Your task to perform on an android device: Open Google Chrome and click the shortcut for Amazon.com Image 0: 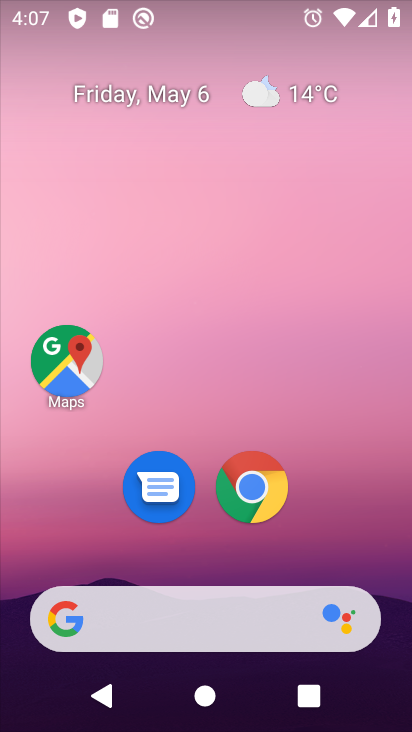
Step 0: drag from (204, 538) to (210, 35)
Your task to perform on an android device: Open Google Chrome and click the shortcut for Amazon.com Image 1: 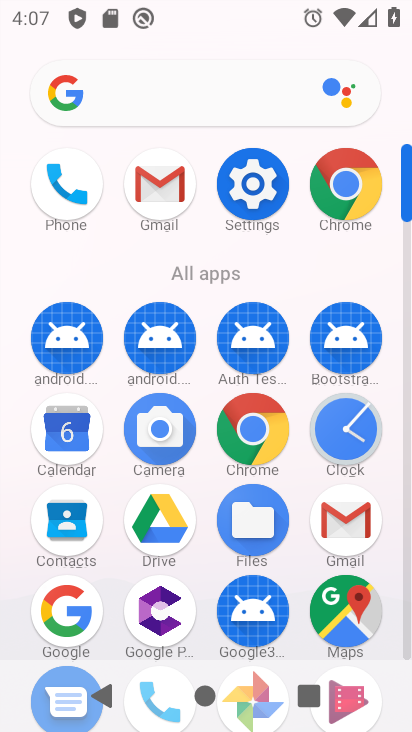
Step 1: click (355, 193)
Your task to perform on an android device: Open Google Chrome and click the shortcut for Amazon.com Image 2: 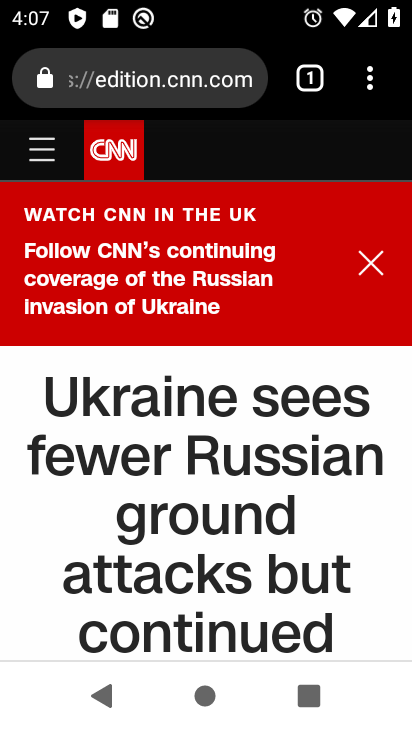
Step 2: click (363, 268)
Your task to perform on an android device: Open Google Chrome and click the shortcut for Amazon.com Image 3: 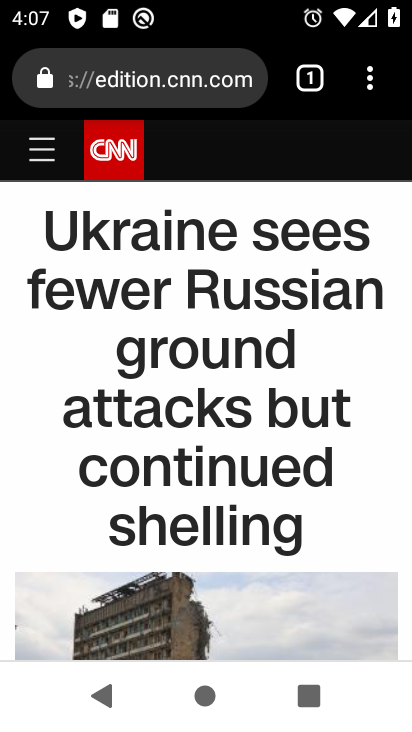
Step 3: click (325, 70)
Your task to perform on an android device: Open Google Chrome and click the shortcut for Amazon.com Image 4: 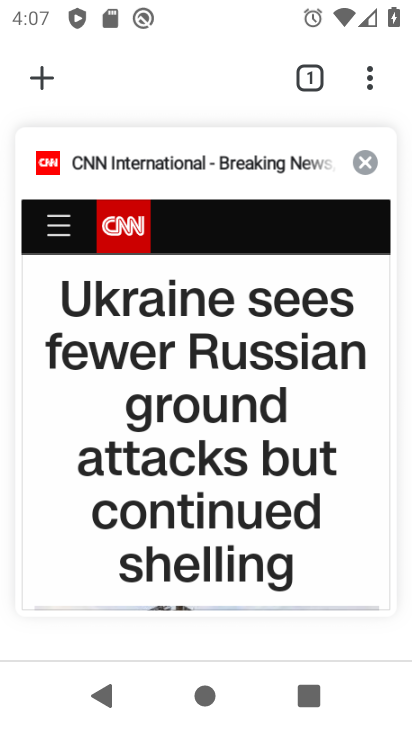
Step 4: click (41, 73)
Your task to perform on an android device: Open Google Chrome and click the shortcut for Amazon.com Image 5: 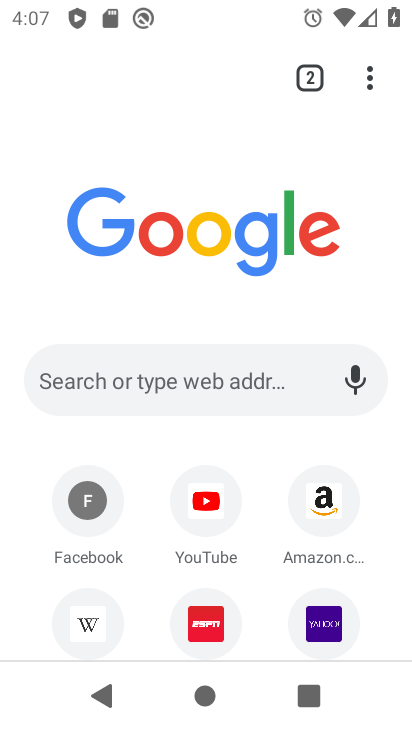
Step 5: click (315, 499)
Your task to perform on an android device: Open Google Chrome and click the shortcut for Amazon.com Image 6: 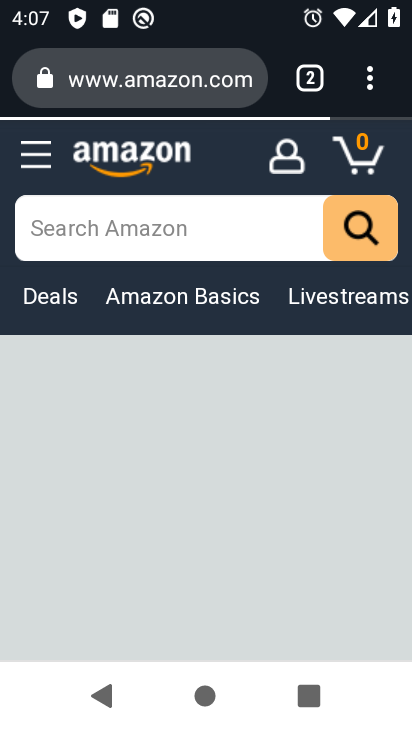
Step 6: task complete